Your task to perform on an android device: Open the phone app and click the voicemail tab. Image 0: 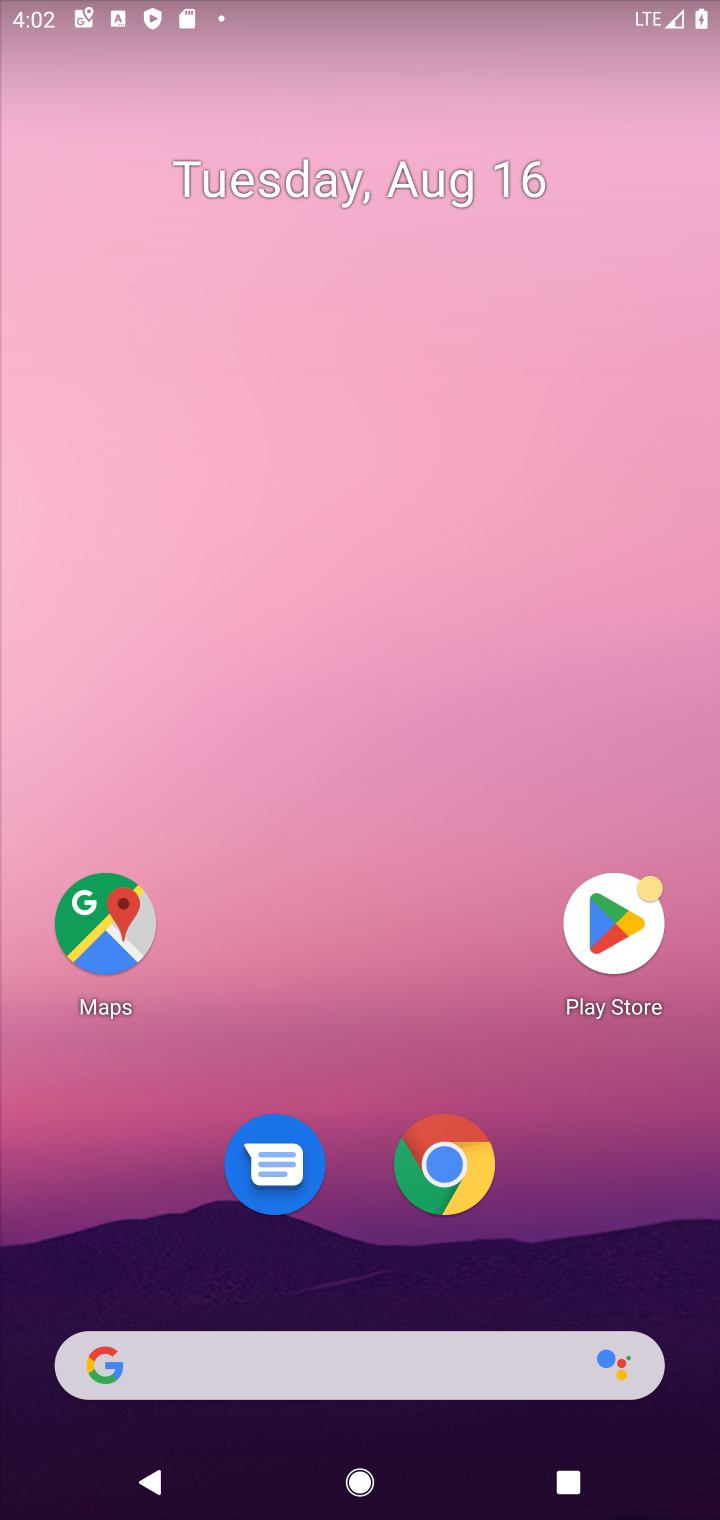
Step 0: drag from (392, 1063) to (467, 181)
Your task to perform on an android device: Open the phone app and click the voicemail tab. Image 1: 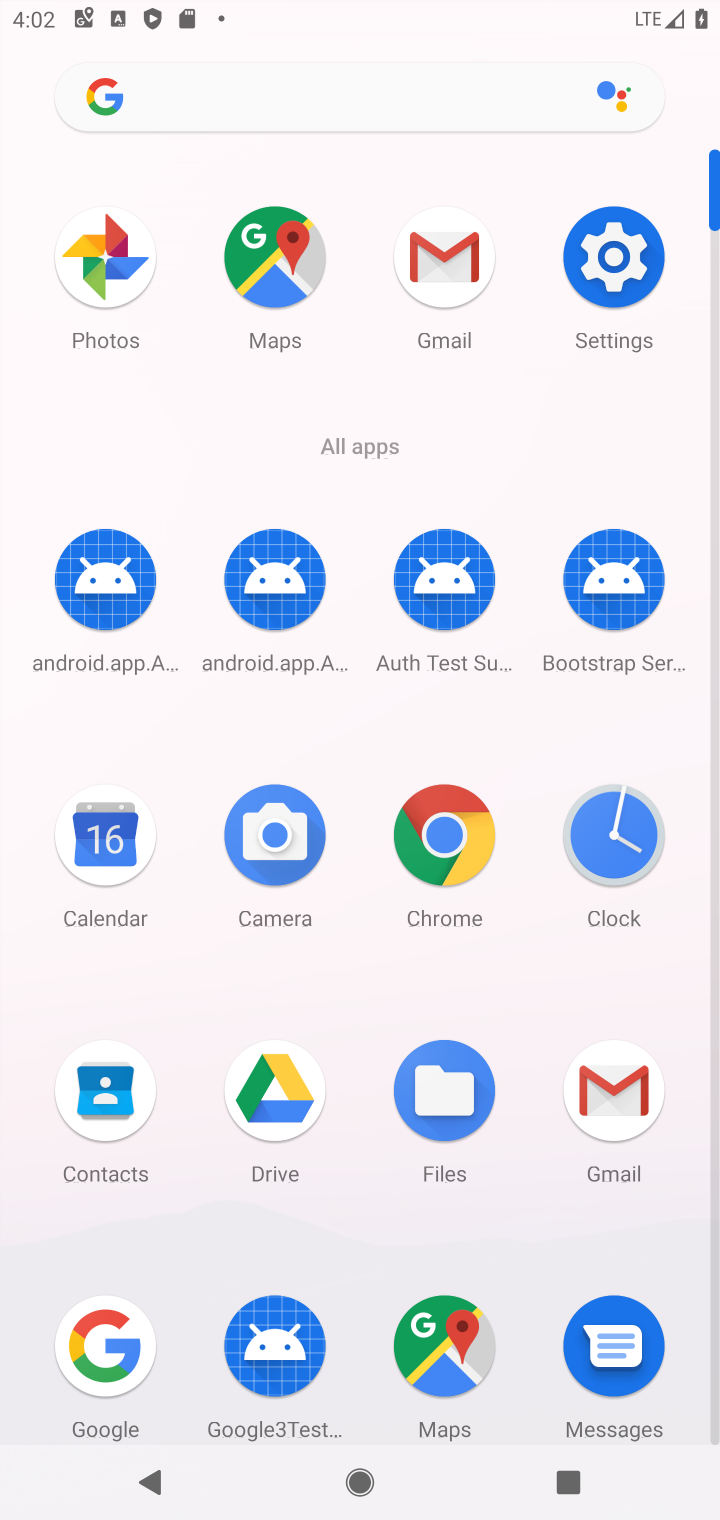
Step 1: drag from (493, 414) to (528, 79)
Your task to perform on an android device: Open the phone app and click the voicemail tab. Image 2: 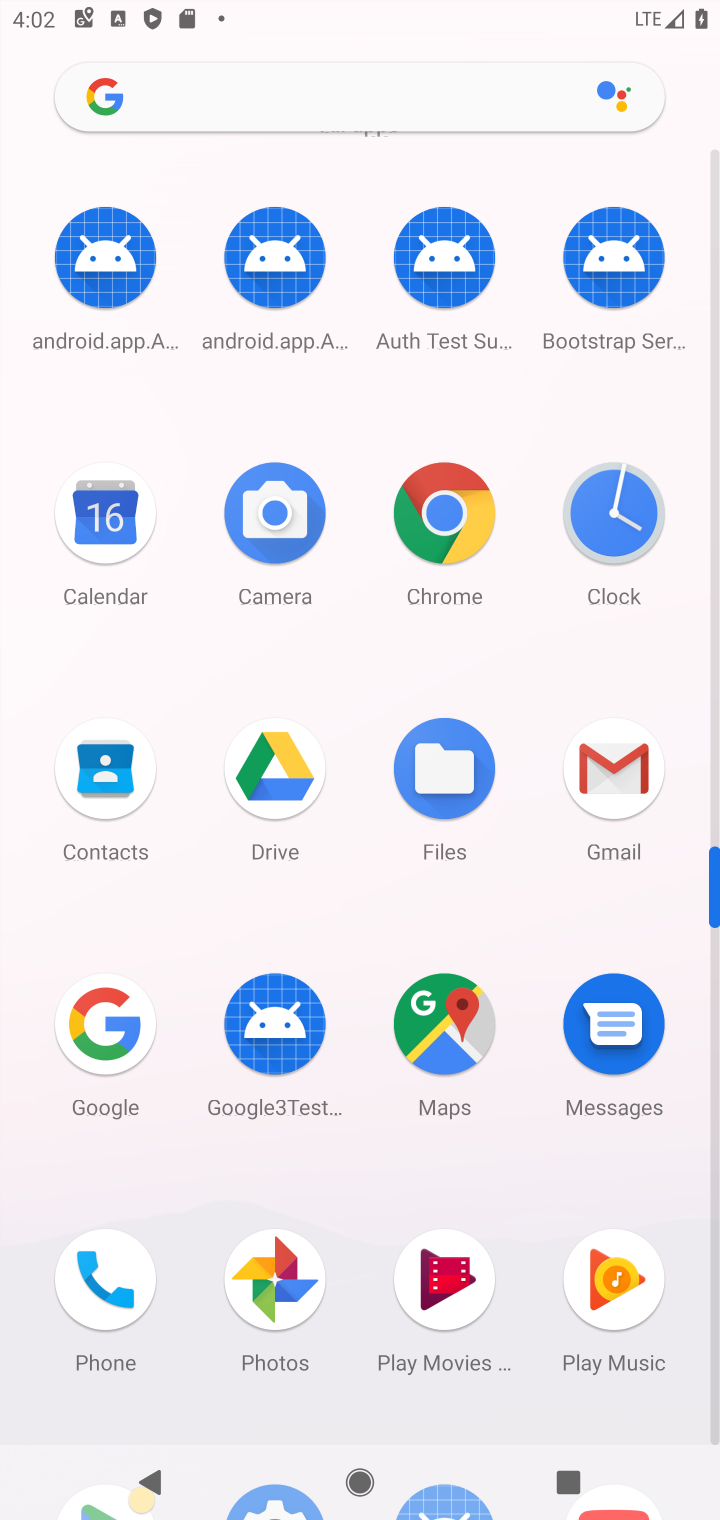
Step 2: click (139, 1269)
Your task to perform on an android device: Open the phone app and click the voicemail tab. Image 3: 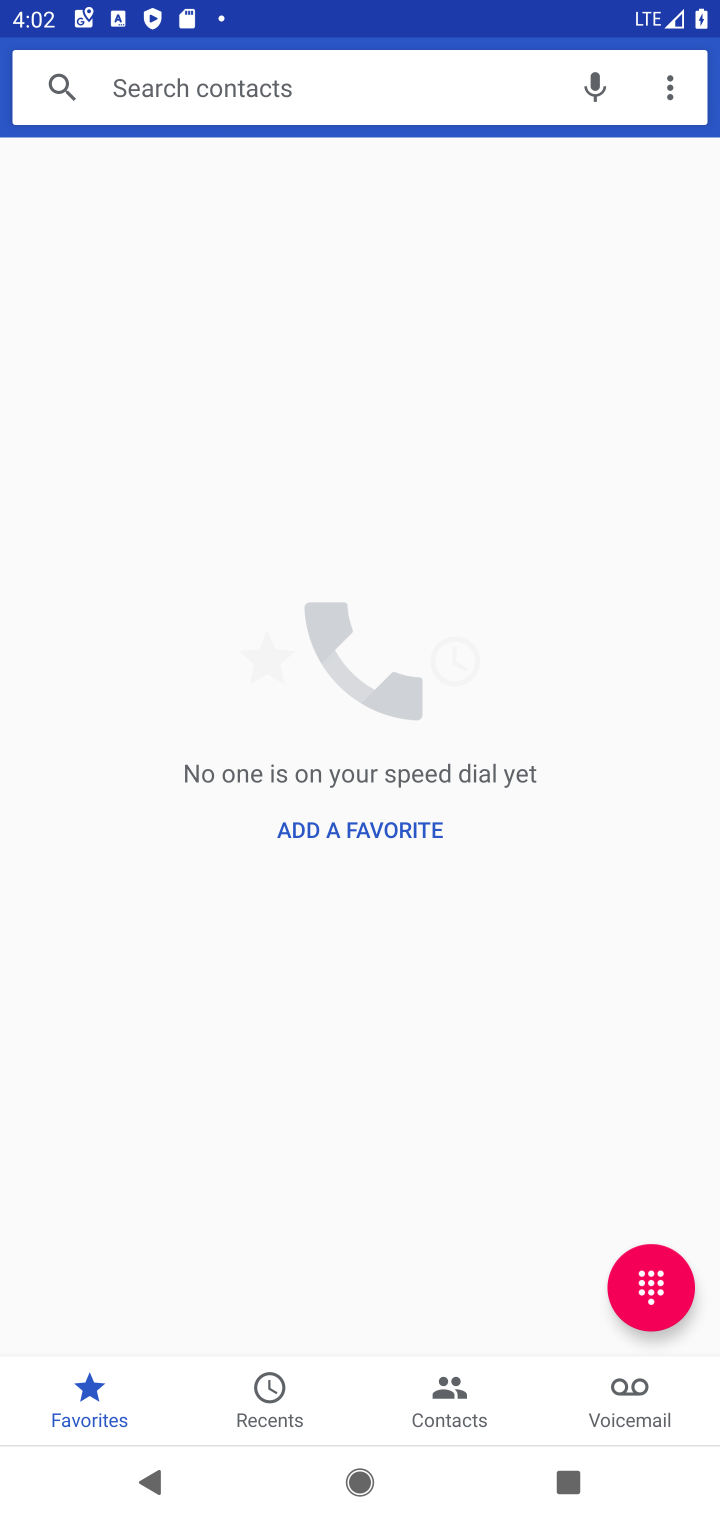
Step 3: click (619, 1411)
Your task to perform on an android device: Open the phone app and click the voicemail tab. Image 4: 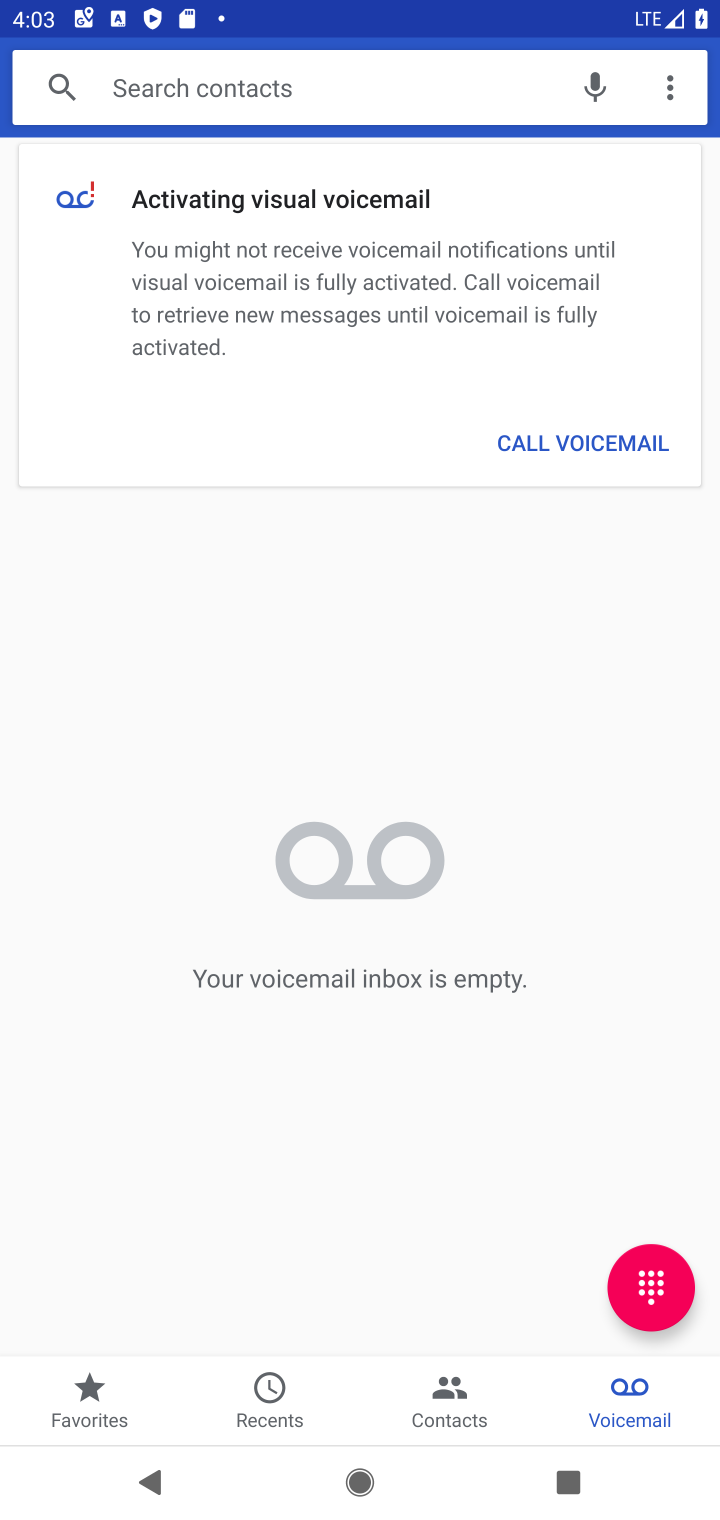
Step 4: task complete